Your task to perform on an android device: Open the Play Movies app and select the watchlist tab. Image 0: 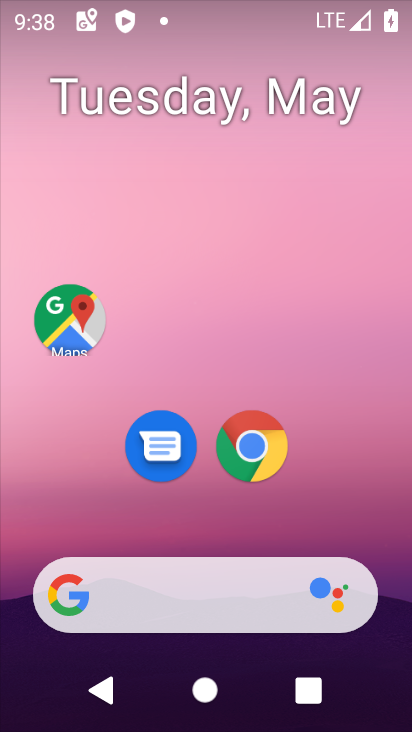
Step 0: drag from (185, 575) to (248, 106)
Your task to perform on an android device: Open the Play Movies app and select the watchlist tab. Image 1: 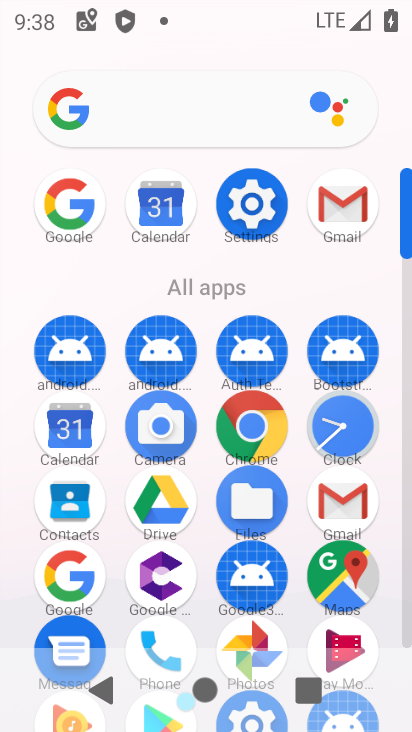
Step 1: click (343, 625)
Your task to perform on an android device: Open the Play Movies app and select the watchlist tab. Image 2: 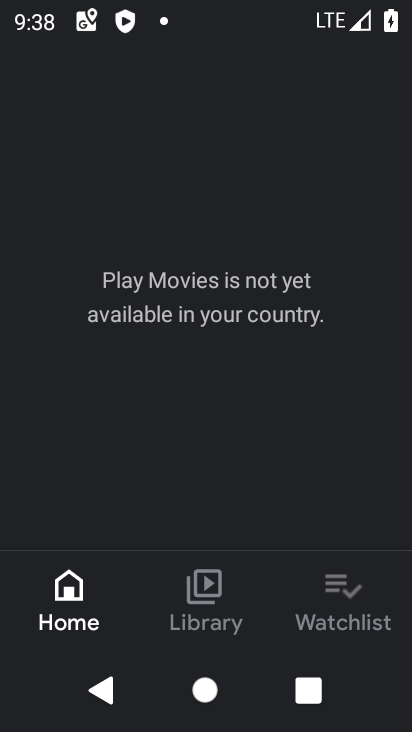
Step 2: click (324, 591)
Your task to perform on an android device: Open the Play Movies app and select the watchlist tab. Image 3: 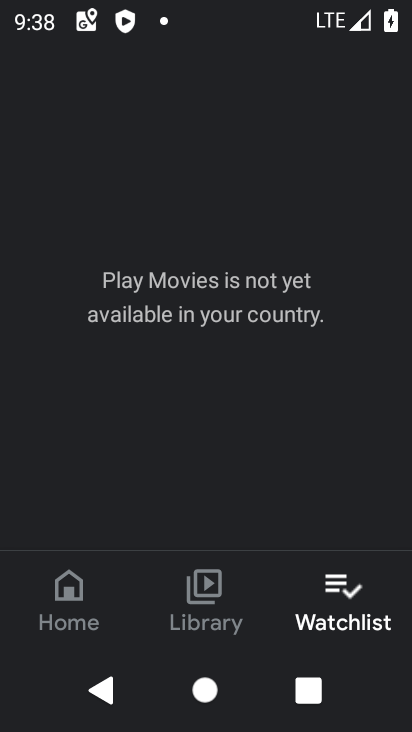
Step 3: task complete